Your task to perform on an android device: Show me productivity apps on the Play Store Image 0: 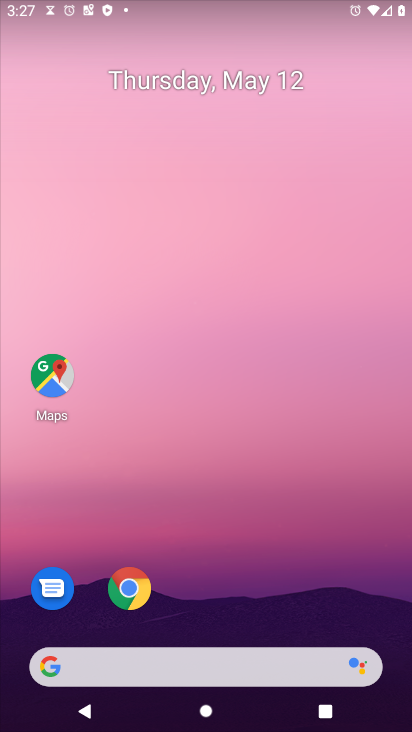
Step 0: drag from (203, 483) to (188, 9)
Your task to perform on an android device: Show me productivity apps on the Play Store Image 1: 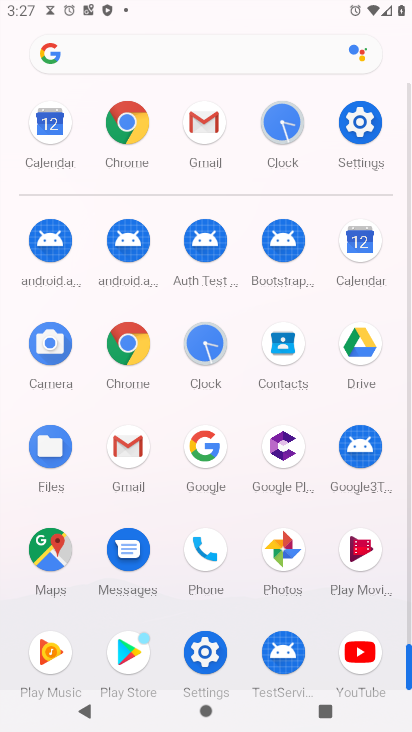
Step 1: click (126, 648)
Your task to perform on an android device: Show me productivity apps on the Play Store Image 2: 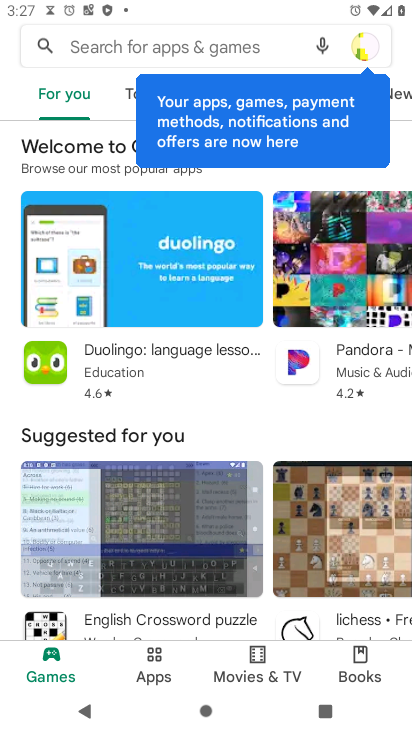
Step 2: click (153, 664)
Your task to perform on an android device: Show me productivity apps on the Play Store Image 3: 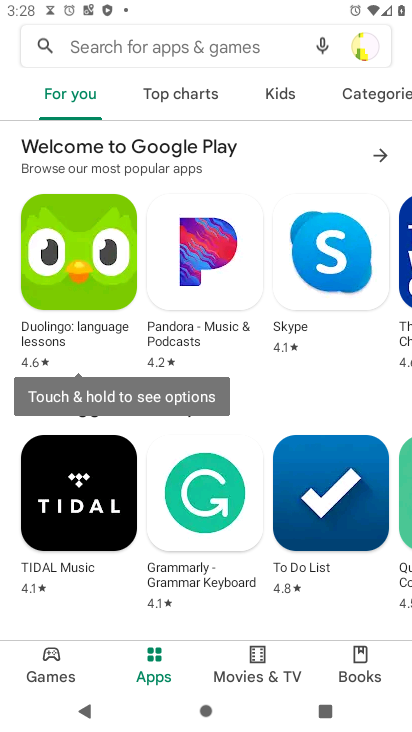
Step 3: click (379, 88)
Your task to perform on an android device: Show me productivity apps on the Play Store Image 4: 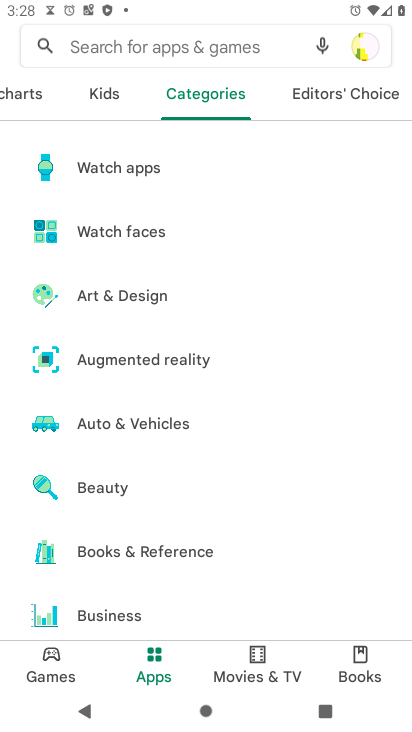
Step 4: drag from (234, 547) to (241, 145)
Your task to perform on an android device: Show me productivity apps on the Play Store Image 5: 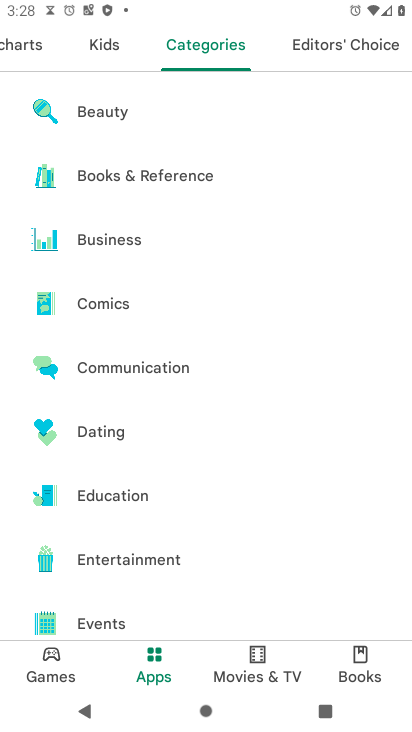
Step 5: drag from (206, 546) to (230, 169)
Your task to perform on an android device: Show me productivity apps on the Play Store Image 6: 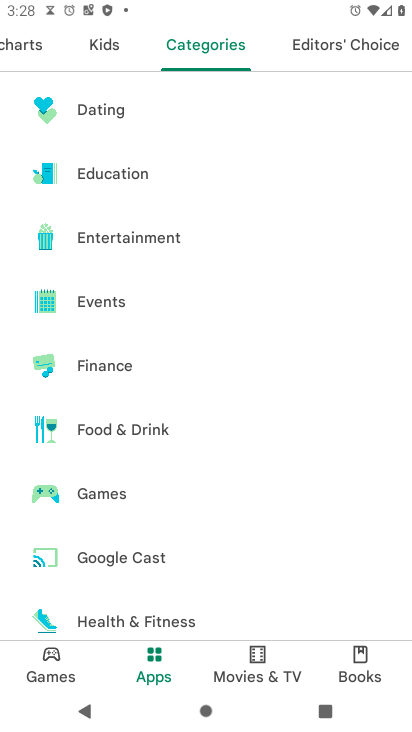
Step 6: drag from (200, 529) to (219, 233)
Your task to perform on an android device: Show me productivity apps on the Play Store Image 7: 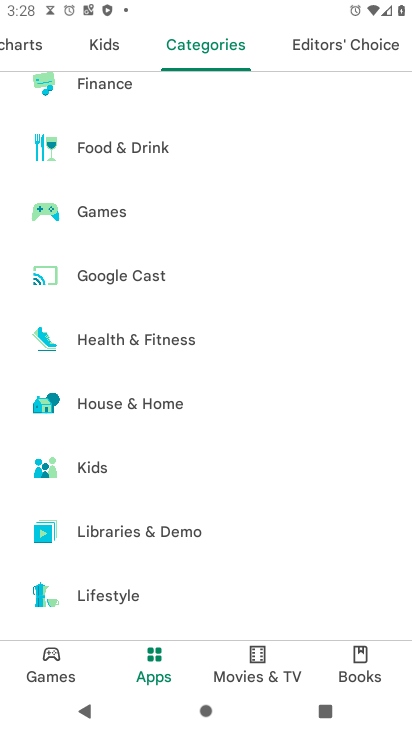
Step 7: drag from (202, 483) to (224, 200)
Your task to perform on an android device: Show me productivity apps on the Play Store Image 8: 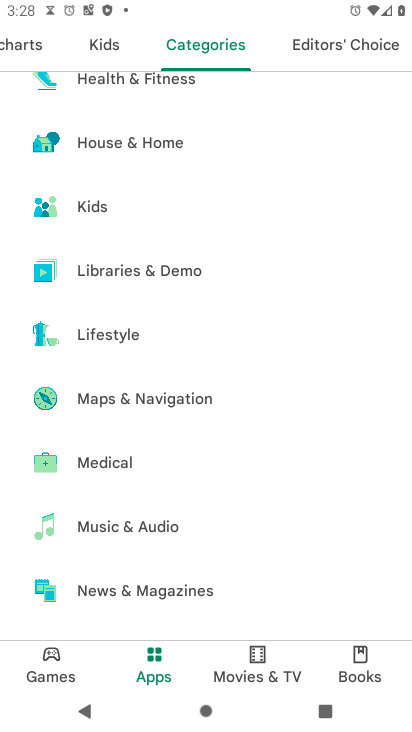
Step 8: drag from (205, 554) to (247, 196)
Your task to perform on an android device: Show me productivity apps on the Play Store Image 9: 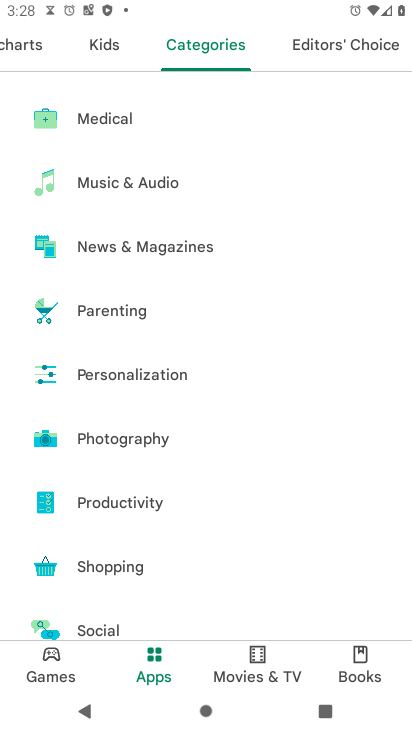
Step 9: click (145, 492)
Your task to perform on an android device: Show me productivity apps on the Play Store Image 10: 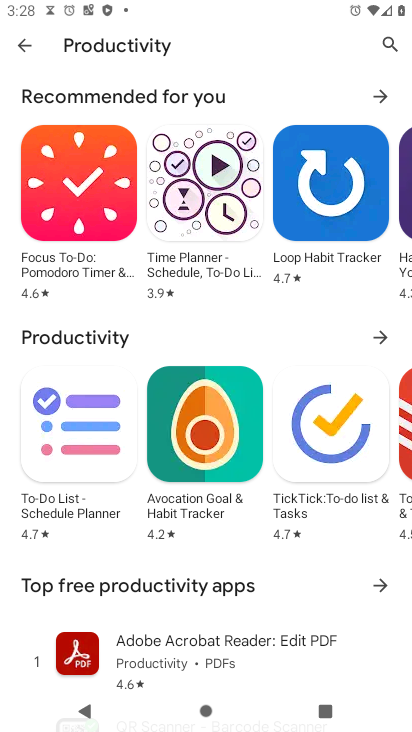
Step 10: task complete